Your task to perform on an android device: Go to Google Image 0: 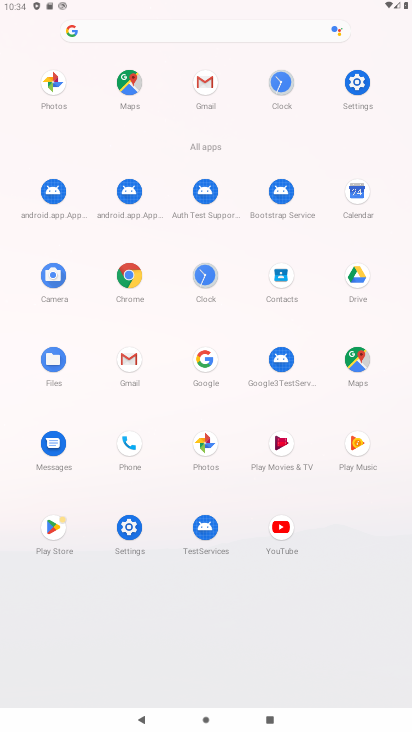
Step 0: click (202, 361)
Your task to perform on an android device: Go to Google Image 1: 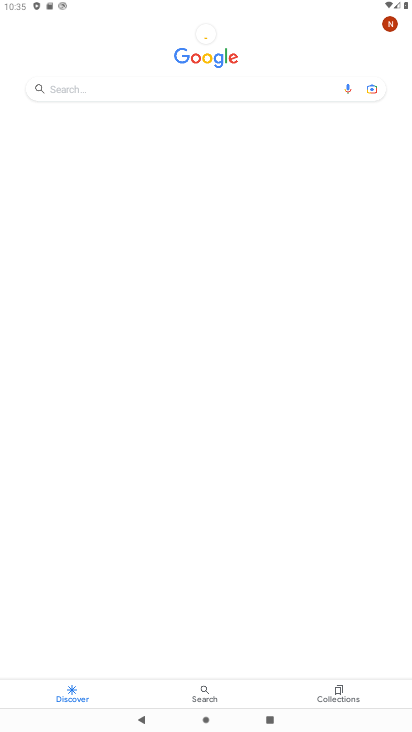
Step 1: task complete